Your task to perform on an android device: toggle show notifications on the lock screen Image 0: 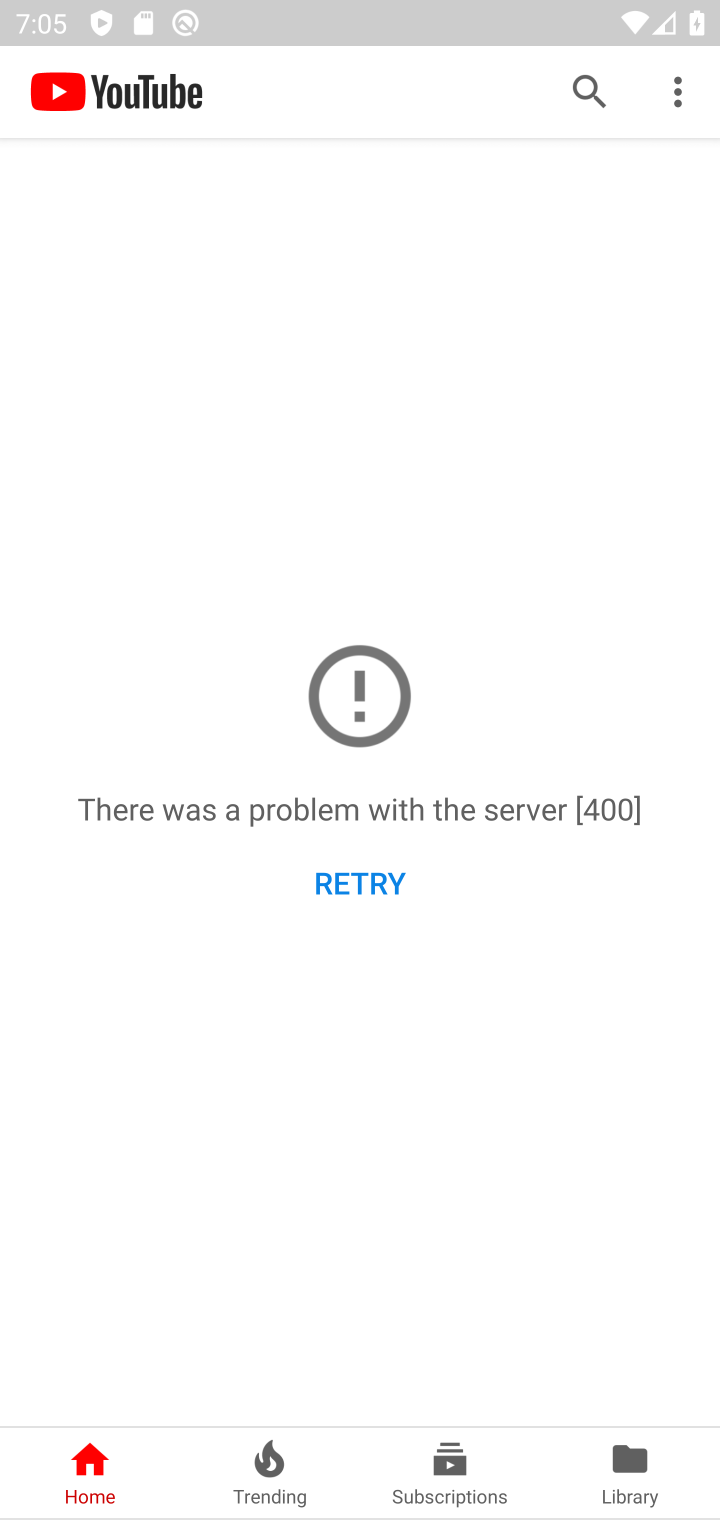
Step 0: press home button
Your task to perform on an android device: toggle show notifications on the lock screen Image 1: 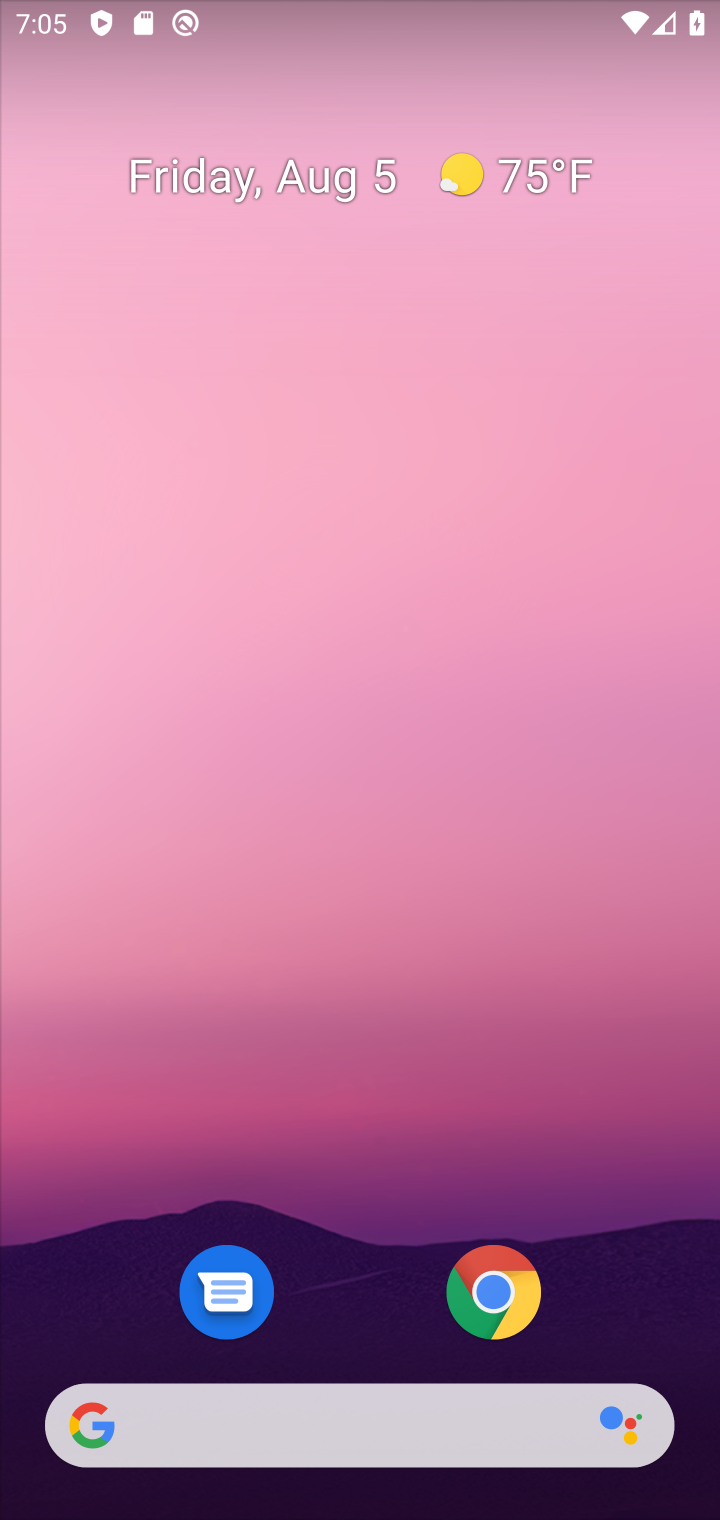
Step 1: drag from (370, 1112) to (449, 50)
Your task to perform on an android device: toggle show notifications on the lock screen Image 2: 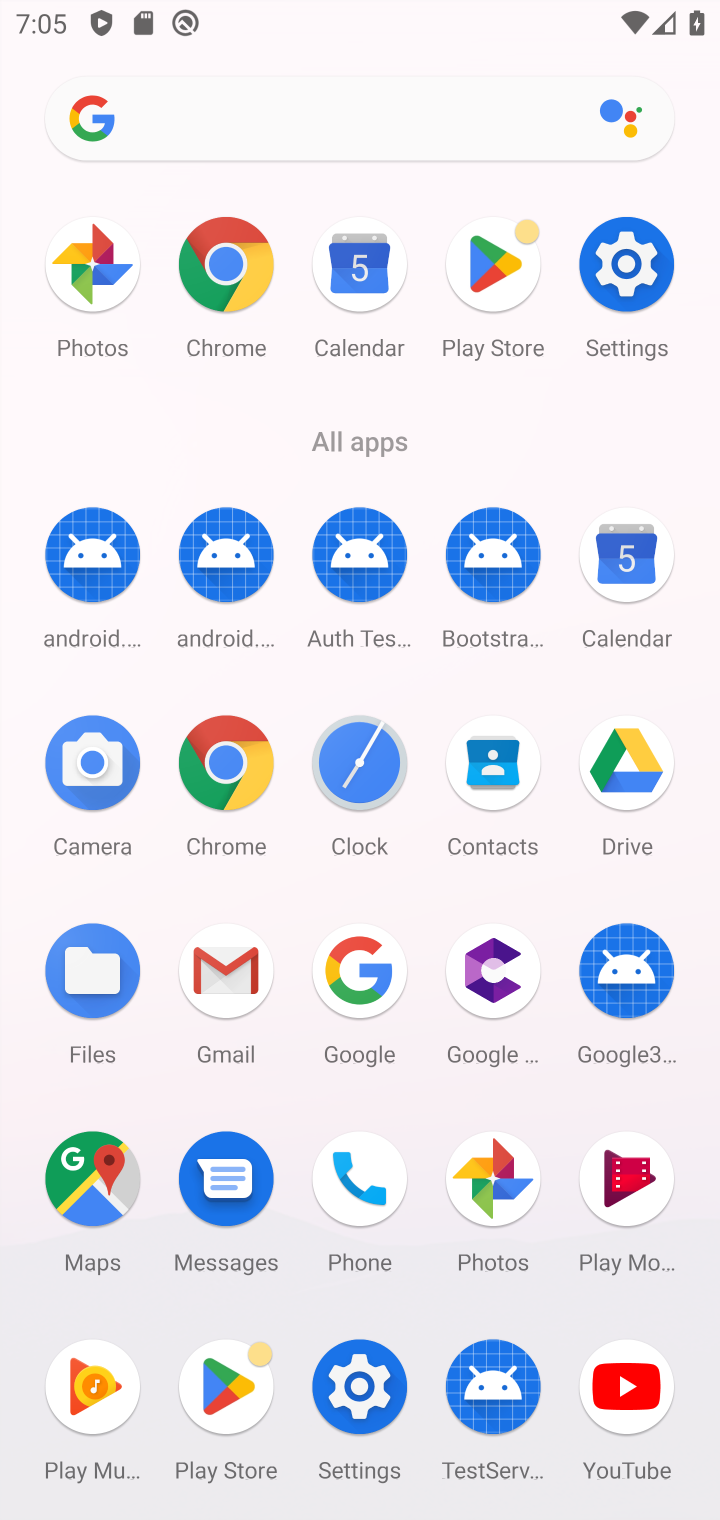
Step 2: click (625, 254)
Your task to perform on an android device: toggle show notifications on the lock screen Image 3: 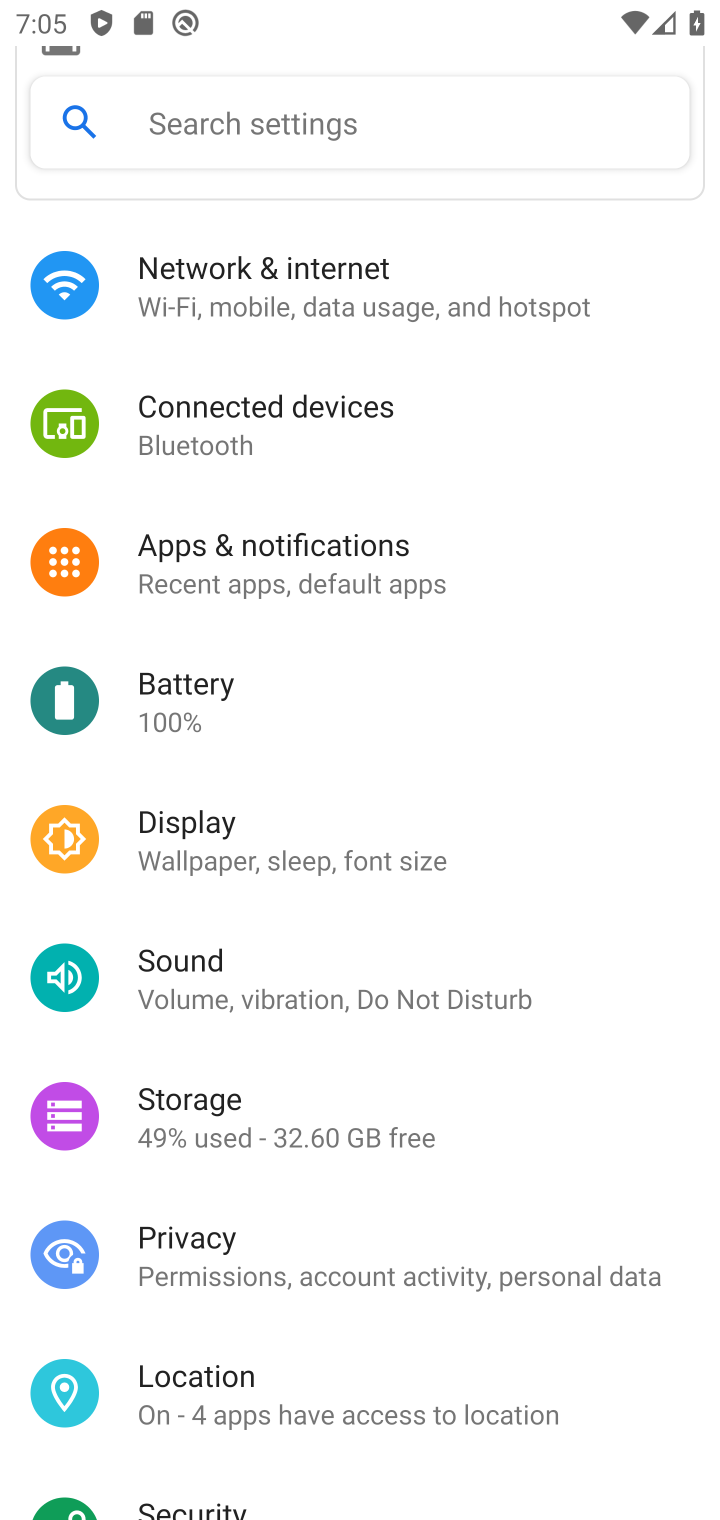
Step 3: click (349, 552)
Your task to perform on an android device: toggle show notifications on the lock screen Image 4: 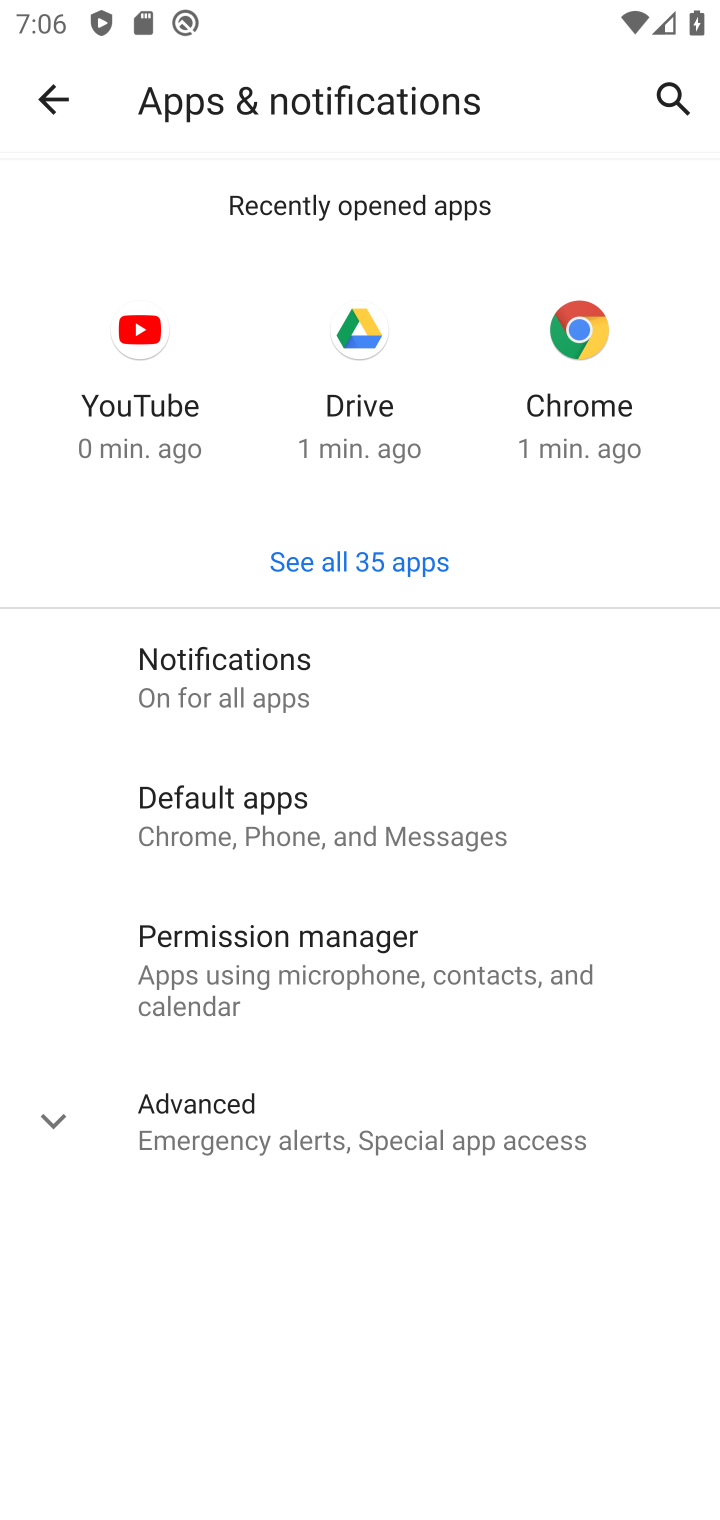
Step 4: click (252, 672)
Your task to perform on an android device: toggle show notifications on the lock screen Image 5: 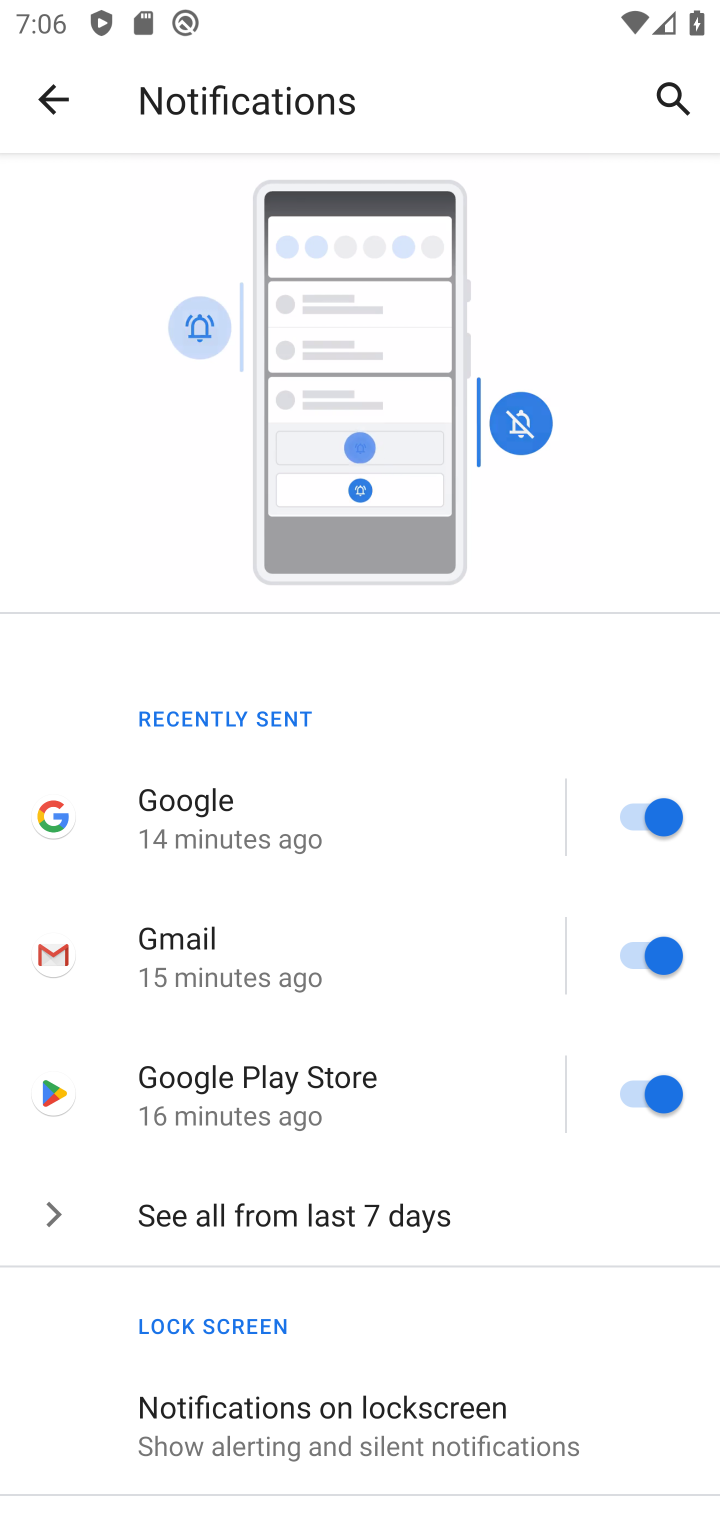
Step 5: drag from (405, 1319) to (368, 385)
Your task to perform on an android device: toggle show notifications on the lock screen Image 6: 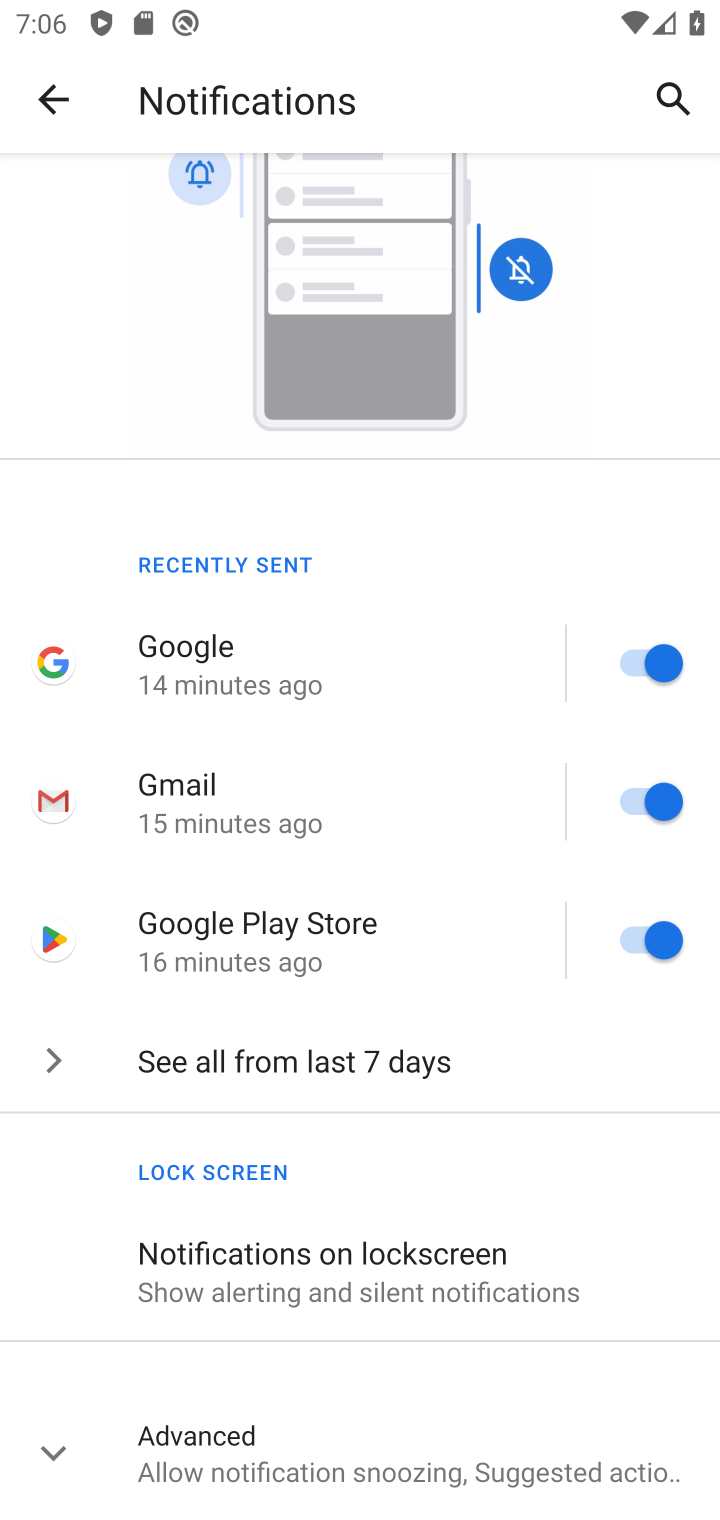
Step 6: click (341, 1276)
Your task to perform on an android device: toggle show notifications on the lock screen Image 7: 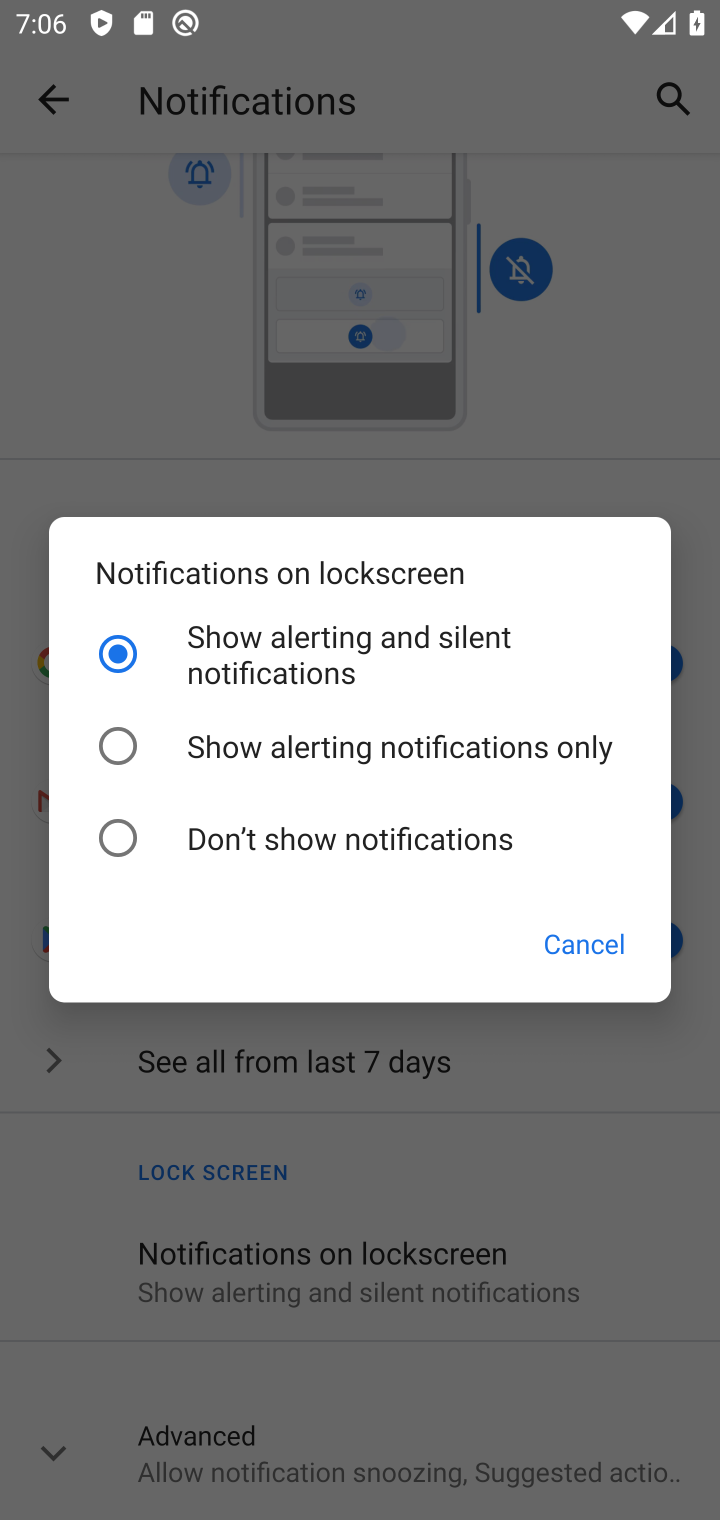
Step 7: click (297, 646)
Your task to perform on an android device: toggle show notifications on the lock screen Image 8: 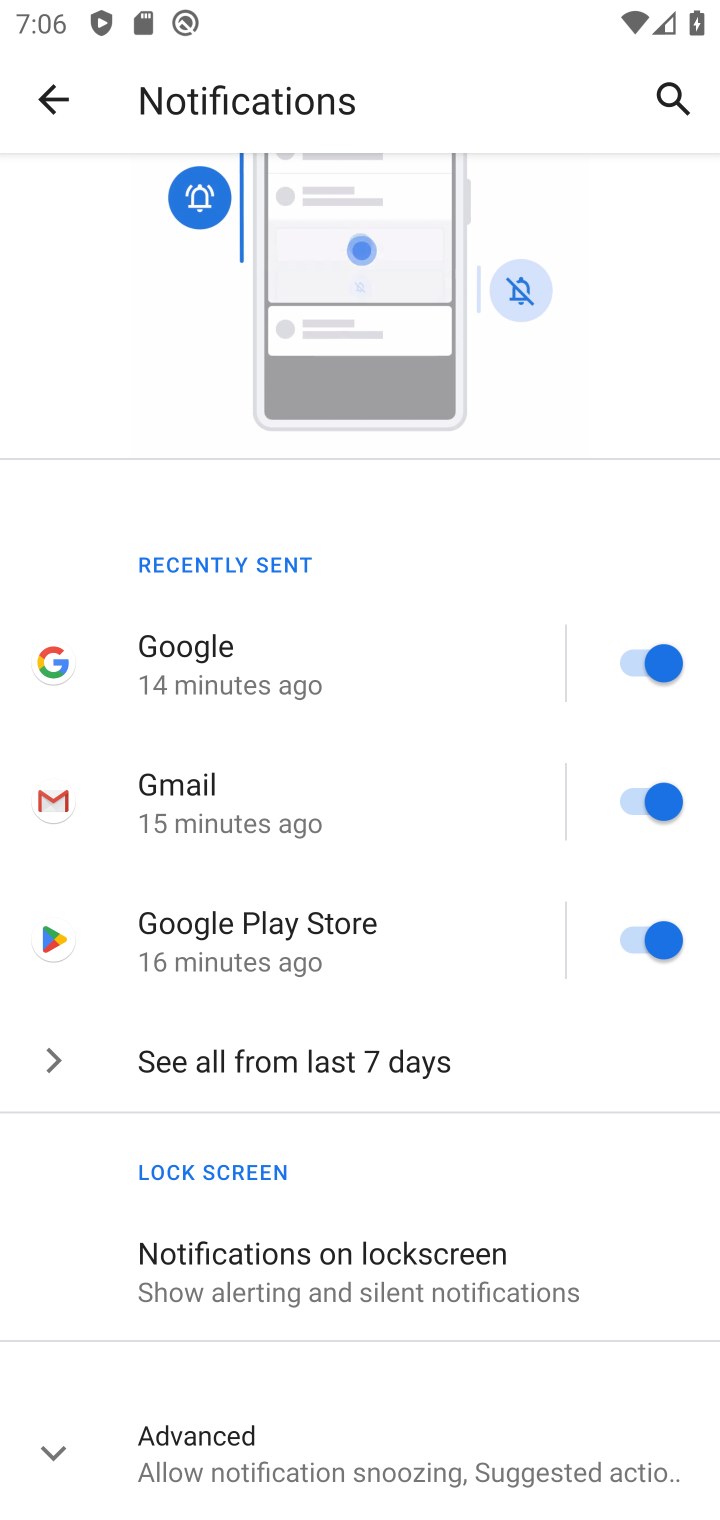
Step 8: task complete